Your task to perform on an android device: Show me the alarms in the clock app Image 0: 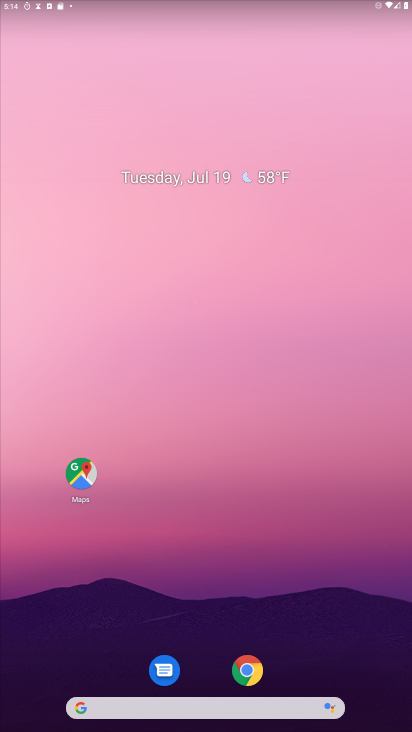
Step 0: drag from (291, 706) to (334, 71)
Your task to perform on an android device: Show me the alarms in the clock app Image 1: 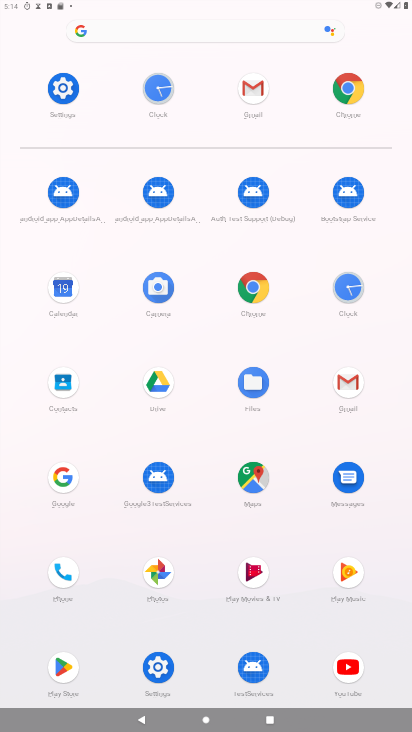
Step 1: click (350, 286)
Your task to perform on an android device: Show me the alarms in the clock app Image 2: 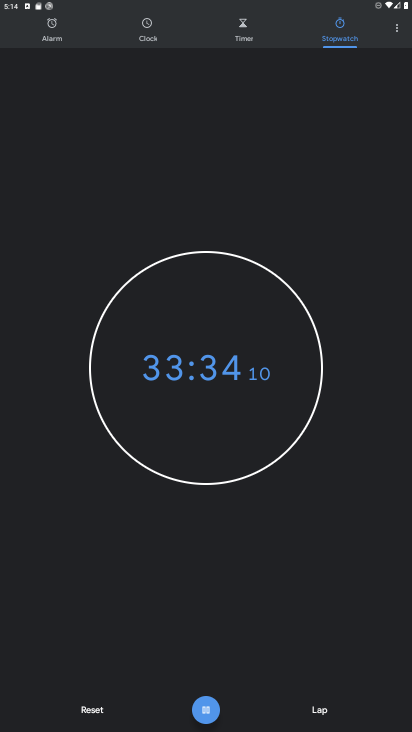
Step 2: click (55, 34)
Your task to perform on an android device: Show me the alarms in the clock app Image 3: 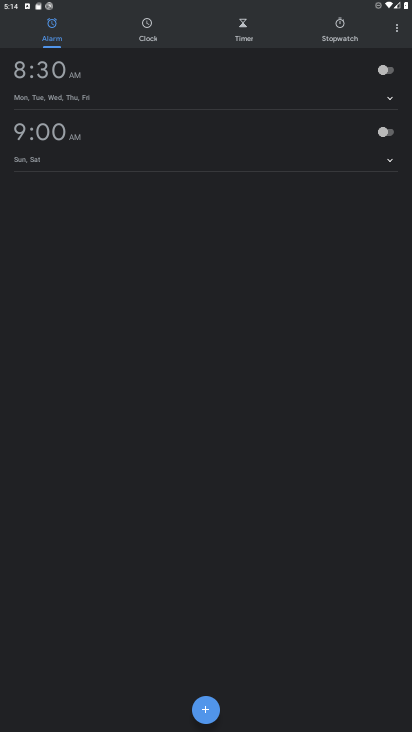
Step 3: task complete